Your task to perform on an android device: Open my contact list Image 0: 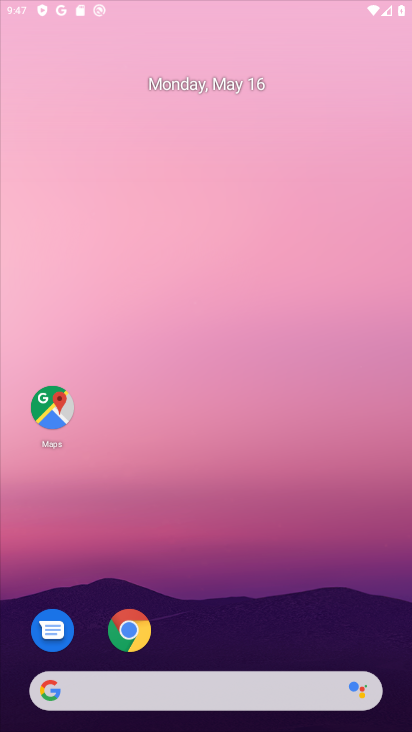
Step 0: click (239, 11)
Your task to perform on an android device: Open my contact list Image 1: 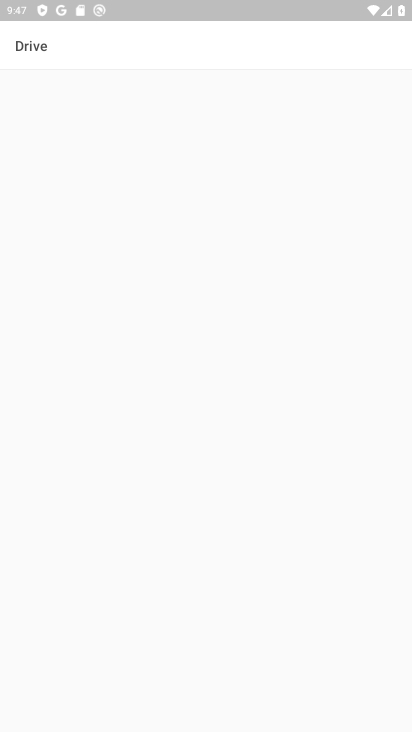
Step 1: press home button
Your task to perform on an android device: Open my contact list Image 2: 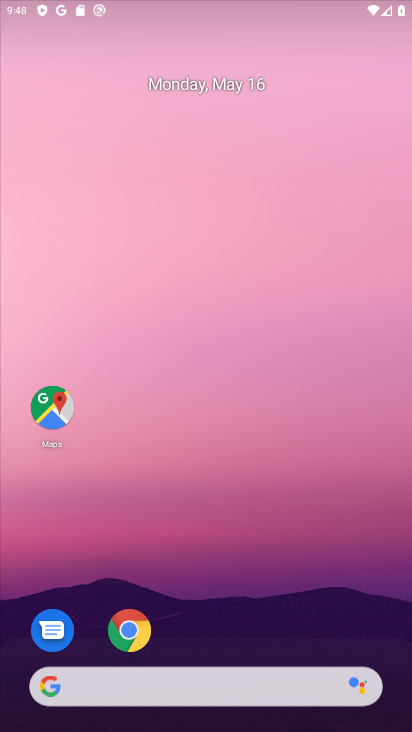
Step 2: drag from (228, 510) to (275, 192)
Your task to perform on an android device: Open my contact list Image 3: 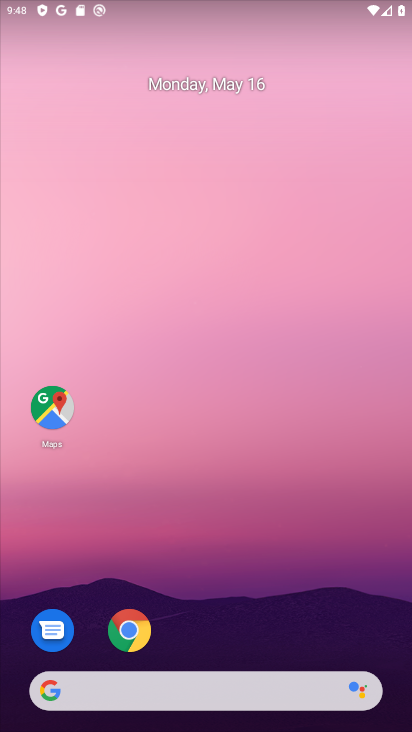
Step 3: drag from (209, 641) to (236, 121)
Your task to perform on an android device: Open my contact list Image 4: 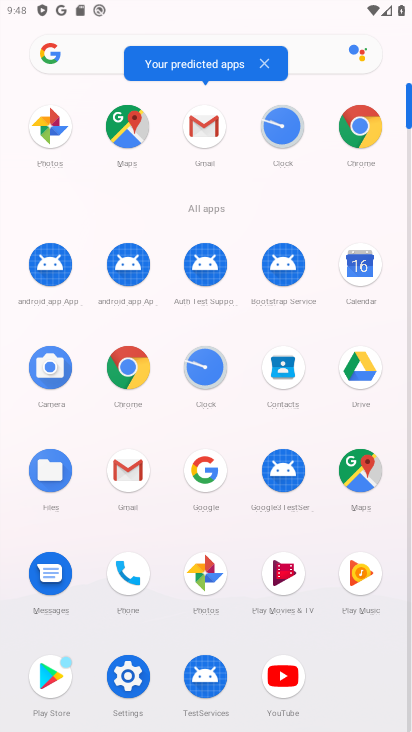
Step 4: click (291, 376)
Your task to perform on an android device: Open my contact list Image 5: 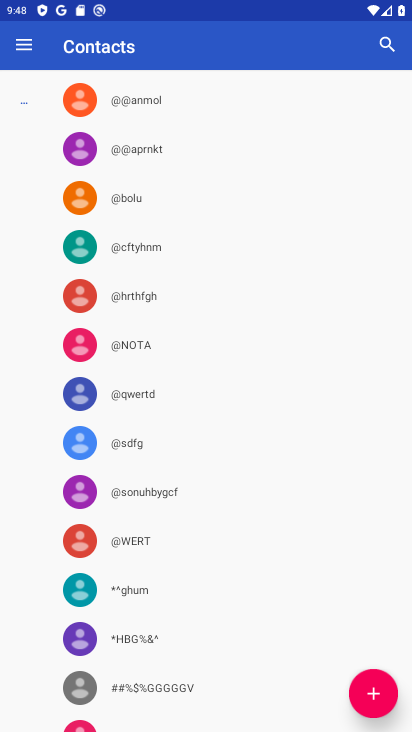
Step 5: task complete